Your task to perform on an android device: Turn on the flashlight Image 0: 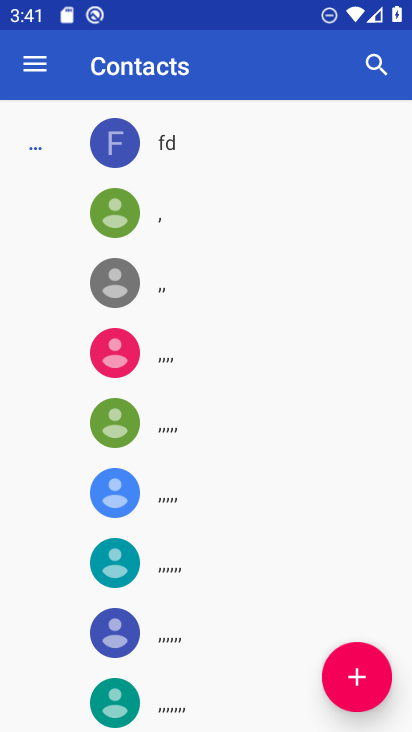
Step 0: press home button
Your task to perform on an android device: Turn on the flashlight Image 1: 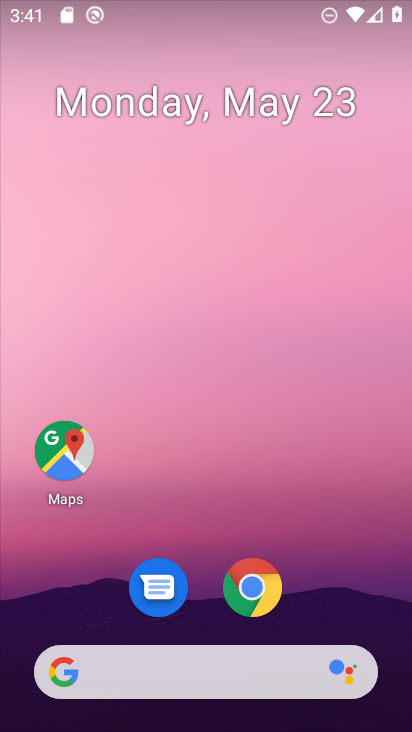
Step 1: drag from (197, 566) to (207, 15)
Your task to perform on an android device: Turn on the flashlight Image 2: 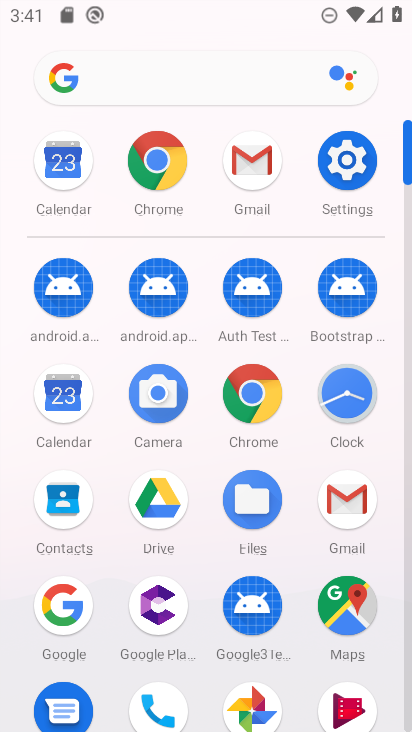
Step 2: click (351, 178)
Your task to perform on an android device: Turn on the flashlight Image 3: 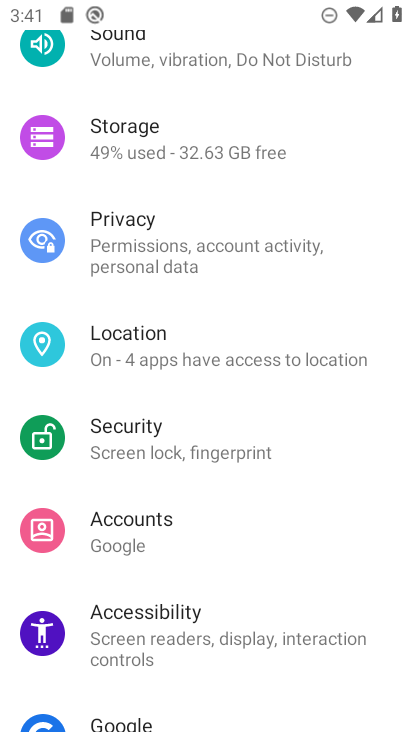
Step 3: drag from (198, 64) to (181, 617)
Your task to perform on an android device: Turn on the flashlight Image 4: 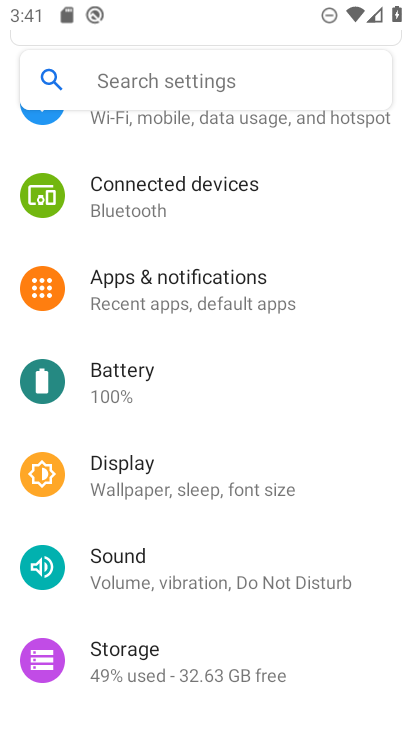
Step 4: click (196, 63)
Your task to perform on an android device: Turn on the flashlight Image 5: 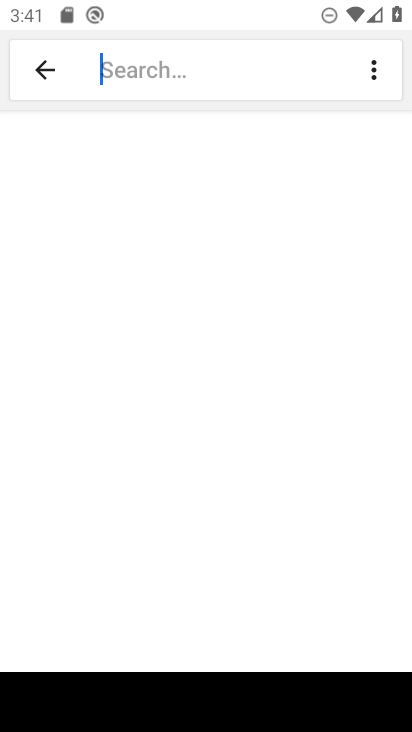
Step 5: type "flashlight"
Your task to perform on an android device: Turn on the flashlight Image 6: 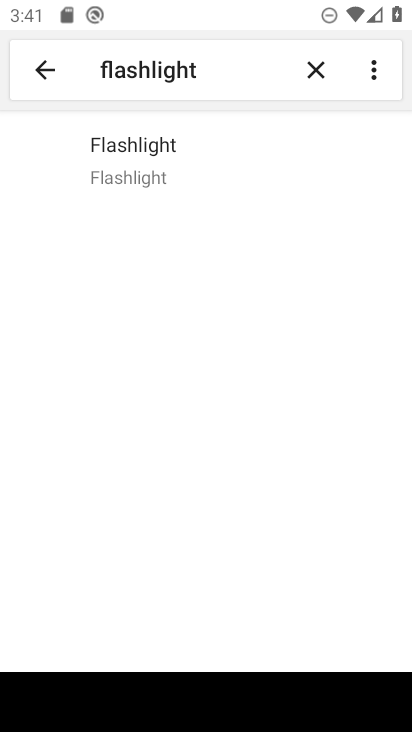
Step 6: click (204, 130)
Your task to perform on an android device: Turn on the flashlight Image 7: 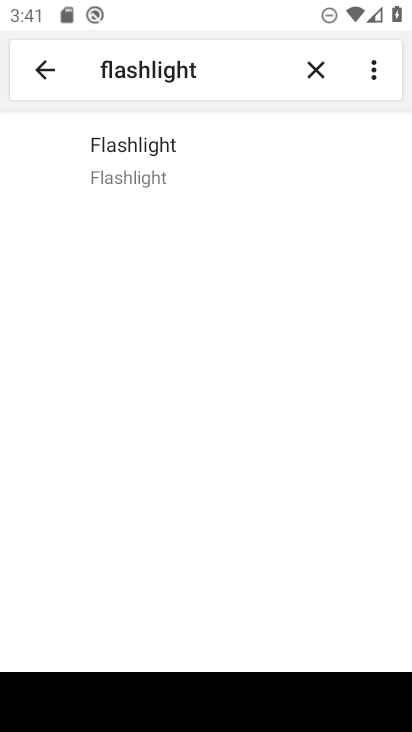
Step 7: click (132, 145)
Your task to perform on an android device: Turn on the flashlight Image 8: 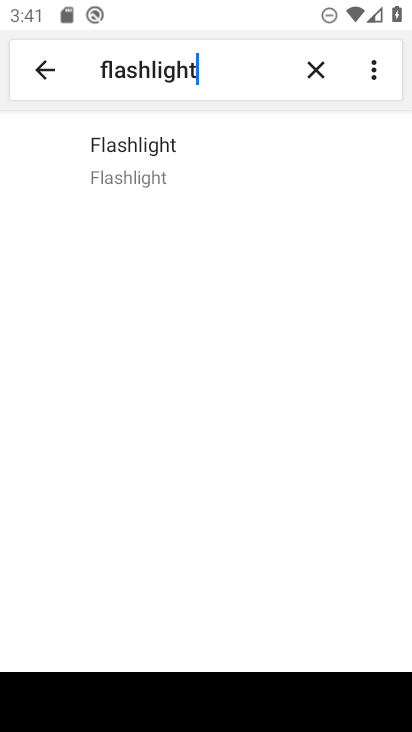
Step 8: task complete